Your task to perform on an android device: Show the shopping cart on ebay. Add "logitech g910" to the cart on ebay Image 0: 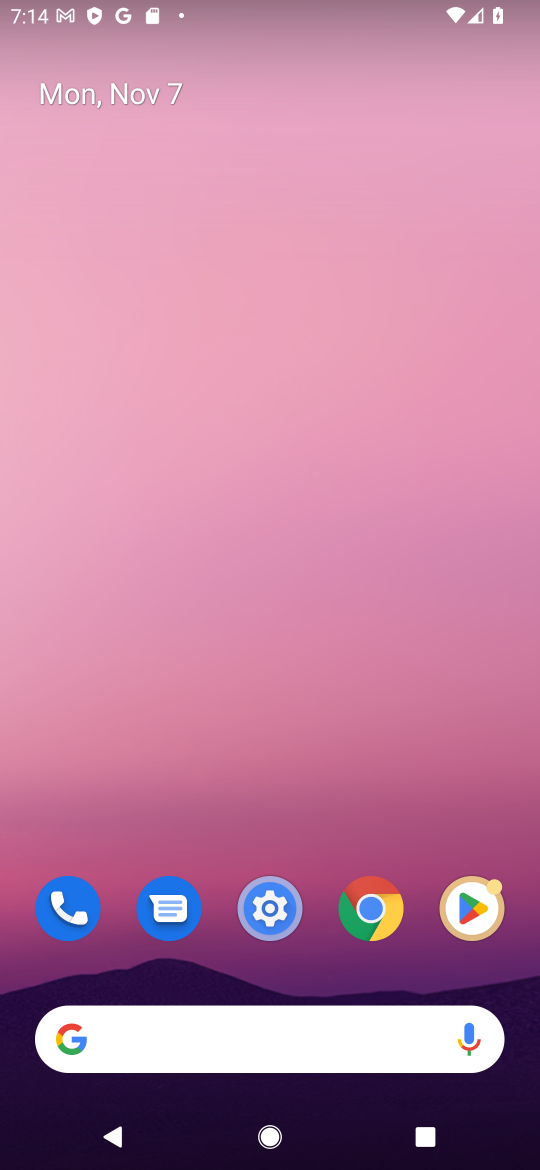
Step 0: click (255, 1025)
Your task to perform on an android device: Show the shopping cart on ebay. Add "logitech g910" to the cart on ebay Image 1: 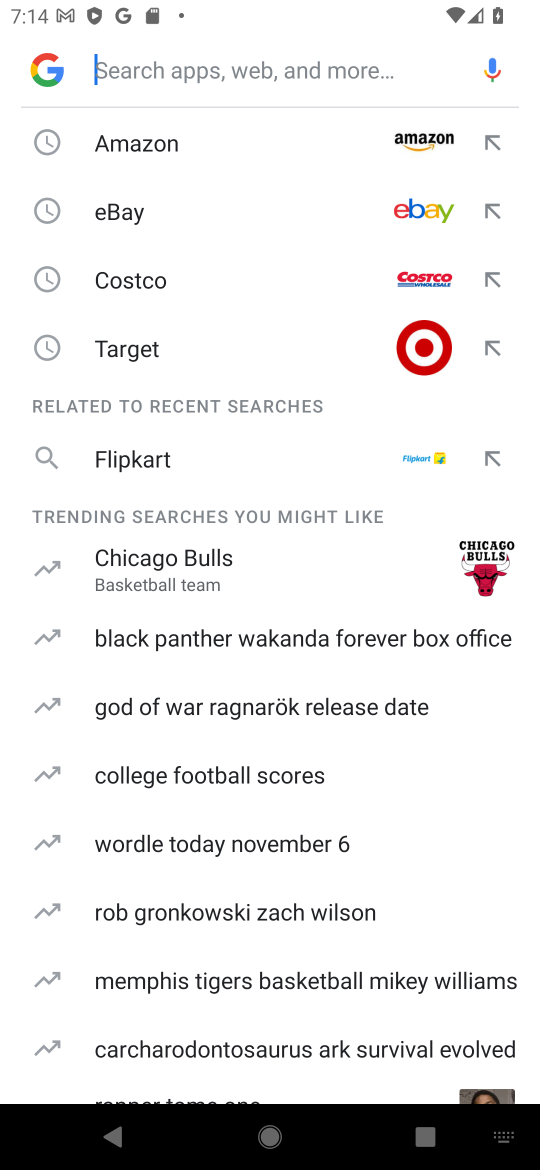
Step 1: click (131, 216)
Your task to perform on an android device: Show the shopping cart on ebay. Add "logitech g910" to the cart on ebay Image 2: 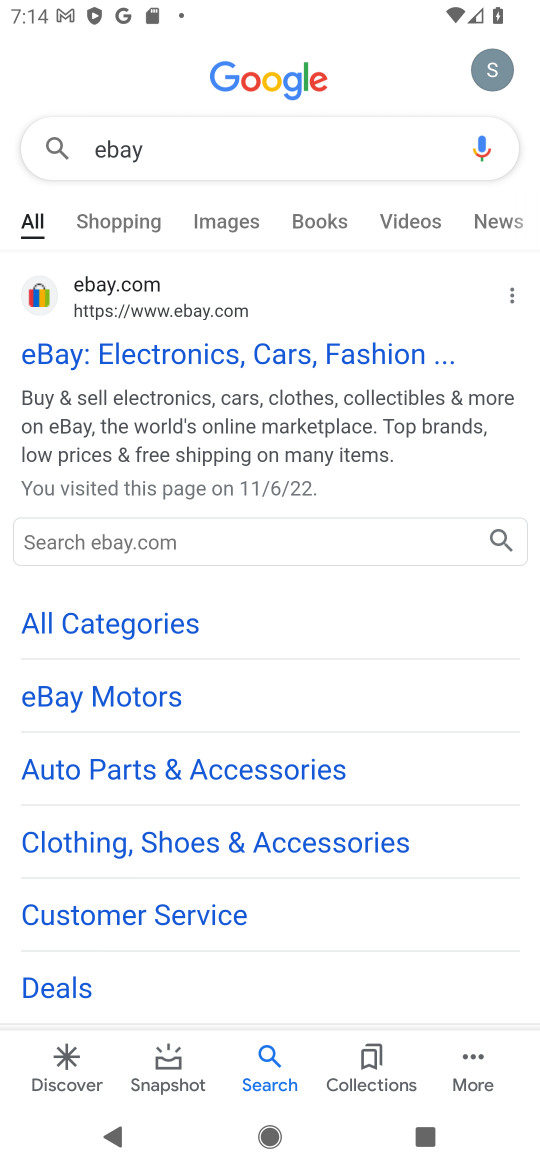
Step 2: click (171, 321)
Your task to perform on an android device: Show the shopping cart on ebay. Add "logitech g910" to the cart on ebay Image 3: 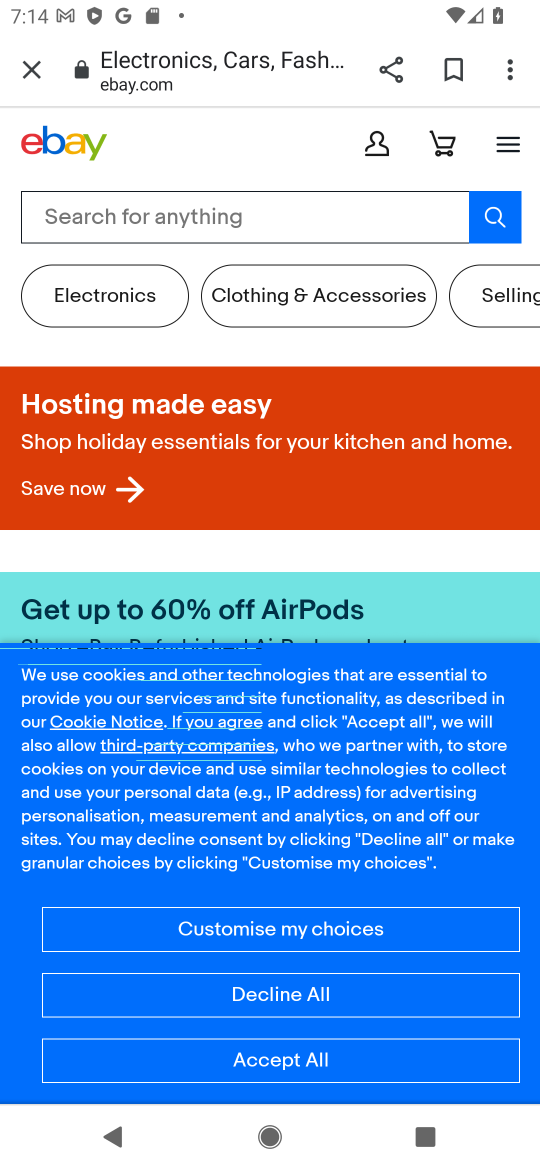
Step 3: click (225, 208)
Your task to perform on an android device: Show the shopping cart on ebay. Add "logitech g910" to the cart on ebay Image 4: 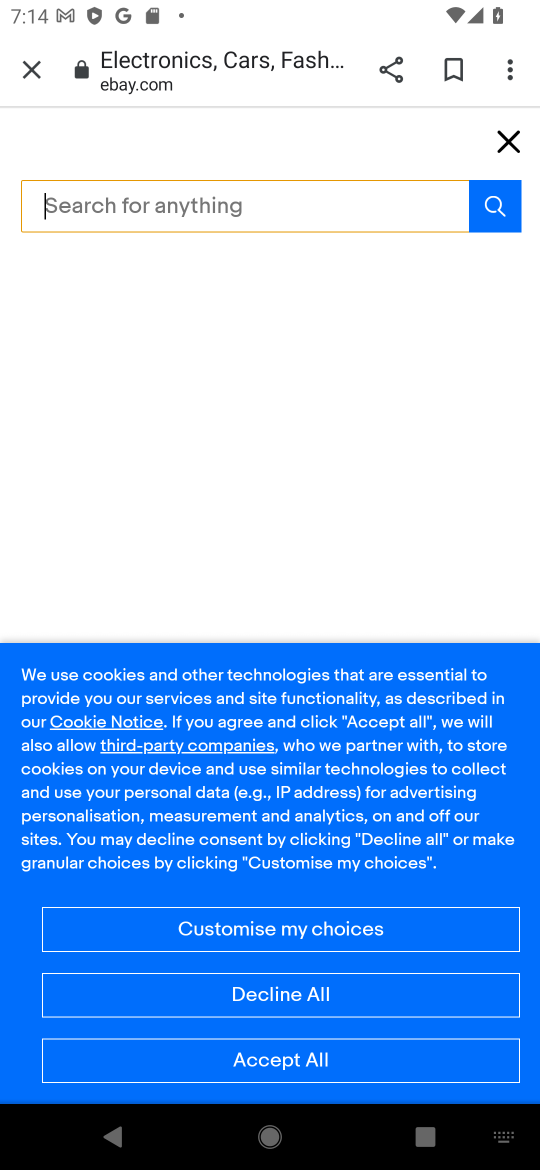
Step 4: type "logitech g910g"
Your task to perform on an android device: Show the shopping cart on ebay. Add "logitech g910" to the cart on ebay Image 5: 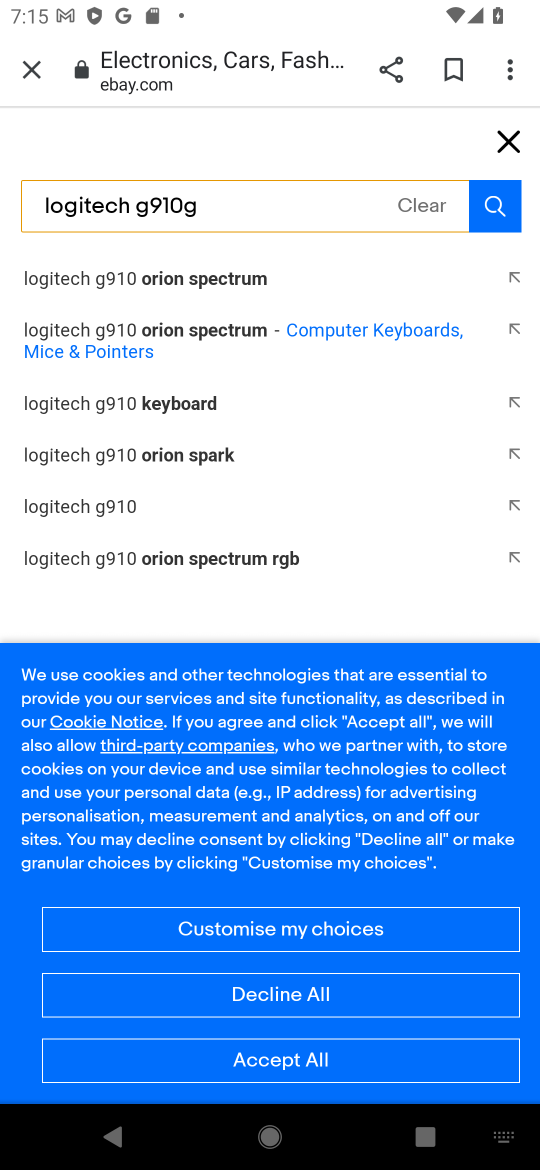
Step 5: click (145, 269)
Your task to perform on an android device: Show the shopping cart on ebay. Add "logitech g910" to the cart on ebay Image 6: 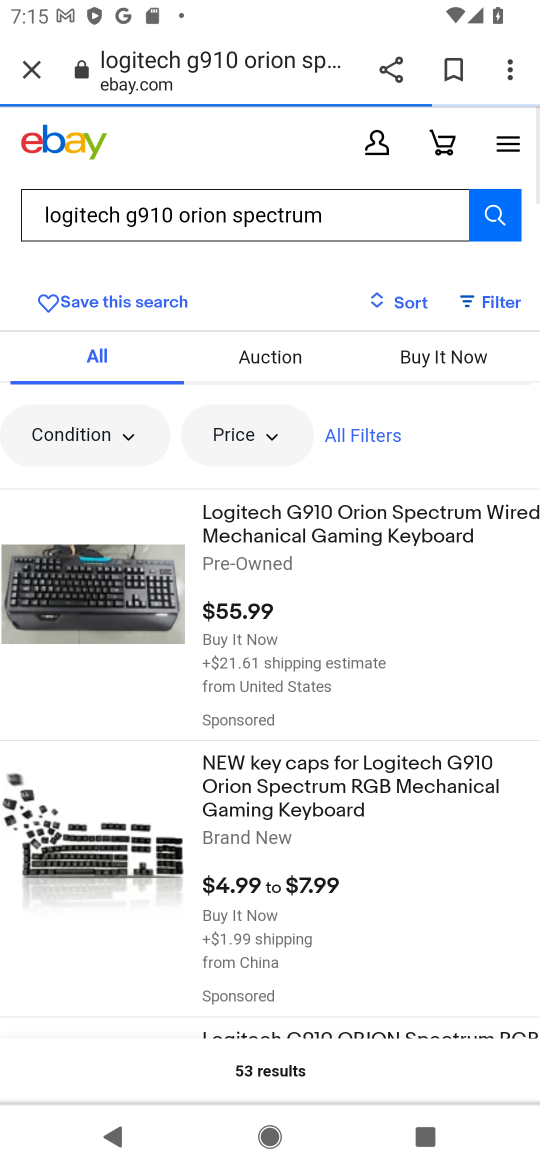
Step 6: task complete